Your task to perform on an android device: add a label to a message in the gmail app Image 0: 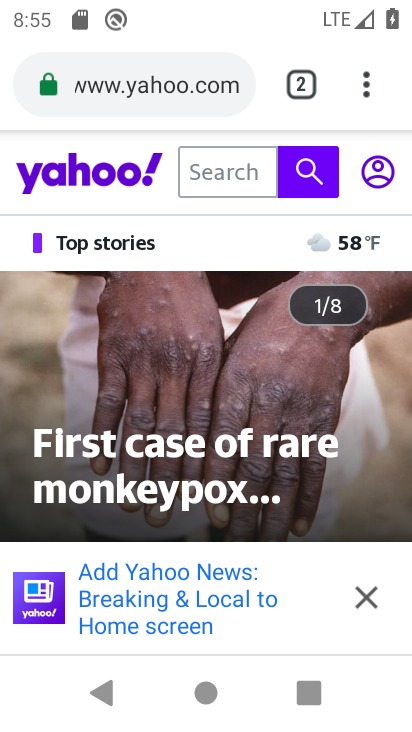
Step 0: press home button
Your task to perform on an android device: add a label to a message in the gmail app Image 1: 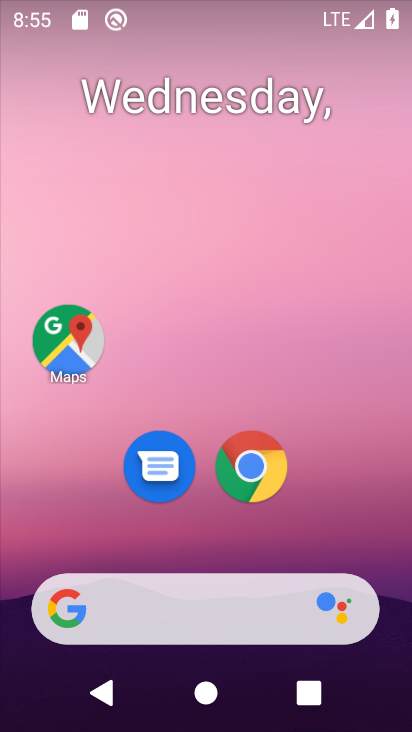
Step 1: drag from (203, 725) to (222, 166)
Your task to perform on an android device: add a label to a message in the gmail app Image 2: 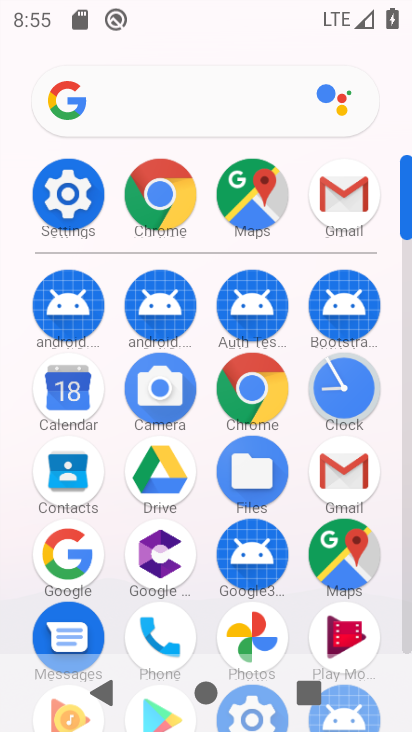
Step 2: click (351, 468)
Your task to perform on an android device: add a label to a message in the gmail app Image 3: 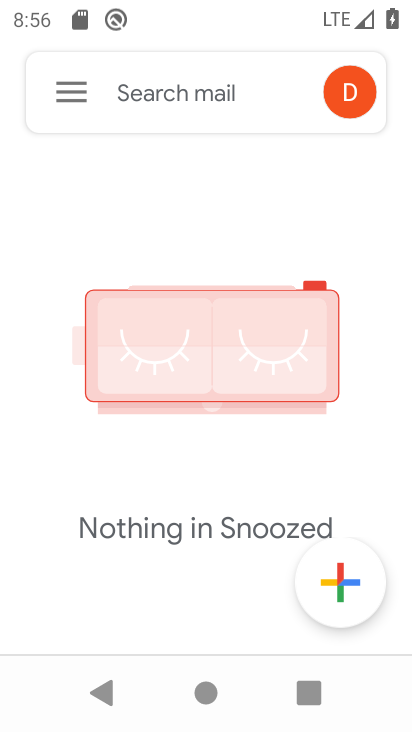
Step 3: click (74, 90)
Your task to perform on an android device: add a label to a message in the gmail app Image 4: 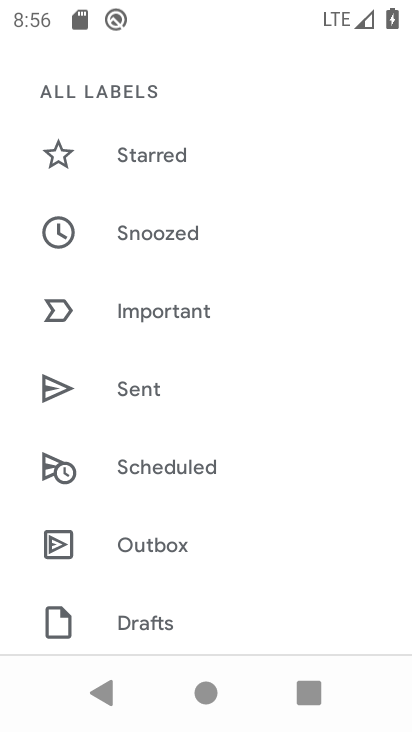
Step 4: drag from (117, 152) to (155, 562)
Your task to perform on an android device: add a label to a message in the gmail app Image 5: 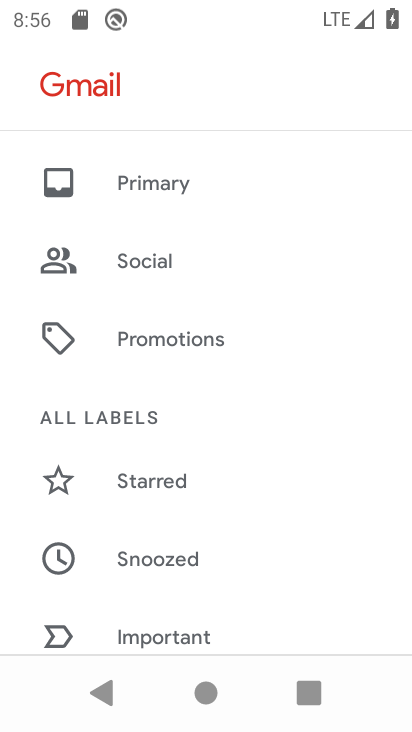
Step 5: drag from (189, 172) to (195, 488)
Your task to perform on an android device: add a label to a message in the gmail app Image 6: 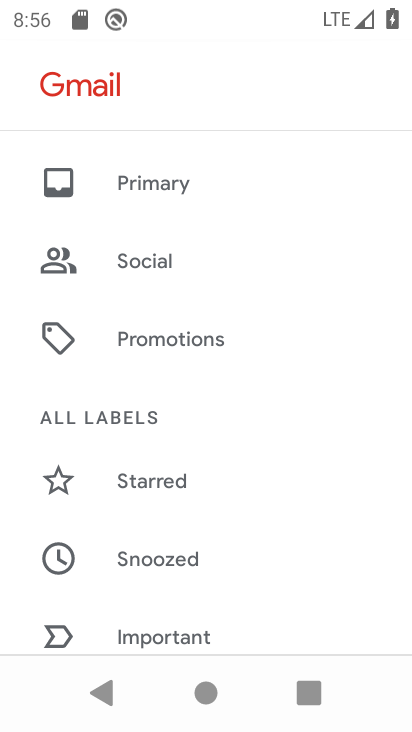
Step 6: click (174, 174)
Your task to perform on an android device: add a label to a message in the gmail app Image 7: 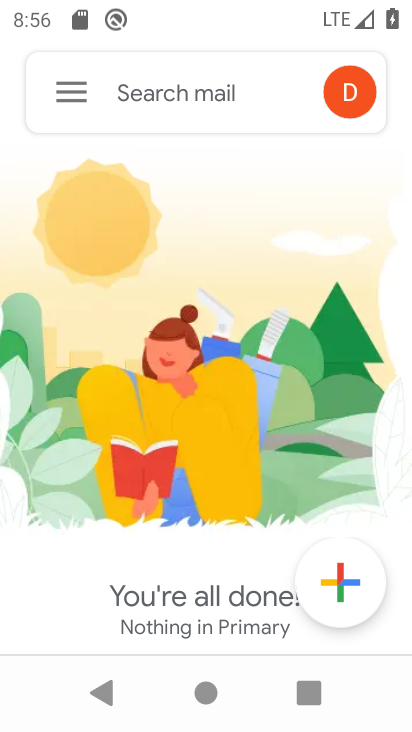
Step 7: task complete